Your task to perform on an android device: toggle data saver in the chrome app Image 0: 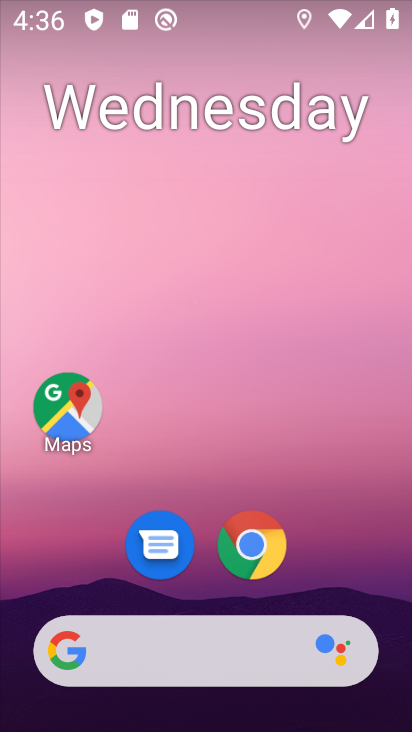
Step 0: drag from (222, 601) to (198, 272)
Your task to perform on an android device: toggle data saver in the chrome app Image 1: 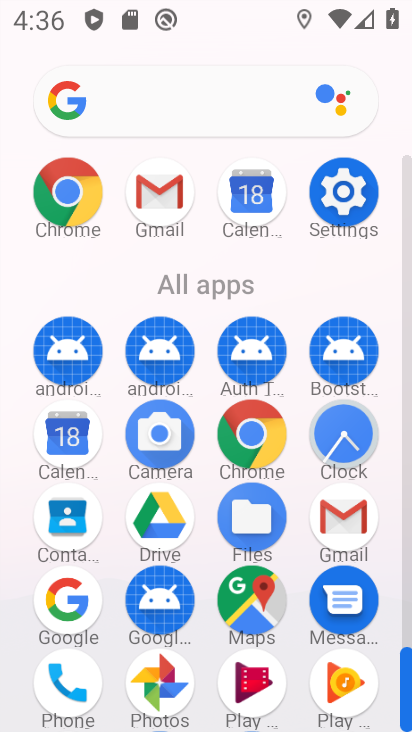
Step 1: click (265, 415)
Your task to perform on an android device: toggle data saver in the chrome app Image 2: 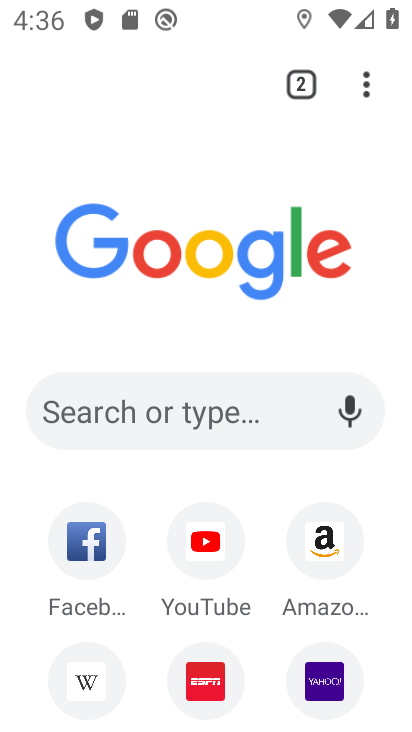
Step 2: click (365, 96)
Your task to perform on an android device: toggle data saver in the chrome app Image 3: 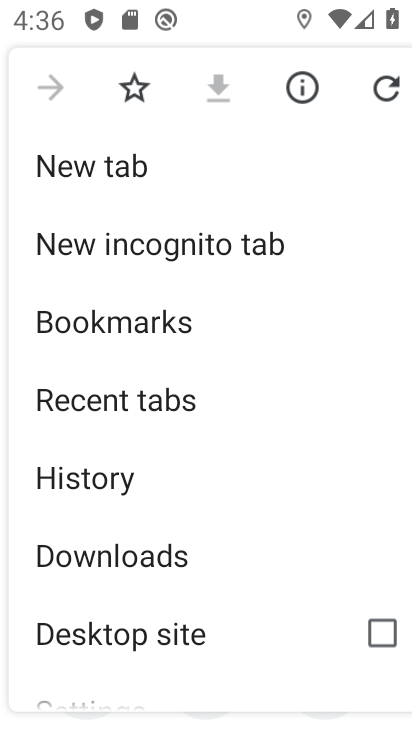
Step 3: drag from (279, 603) to (252, 145)
Your task to perform on an android device: toggle data saver in the chrome app Image 4: 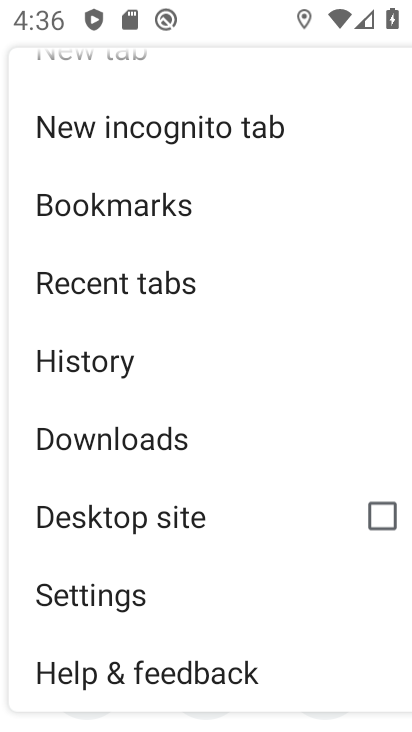
Step 4: click (112, 617)
Your task to perform on an android device: toggle data saver in the chrome app Image 5: 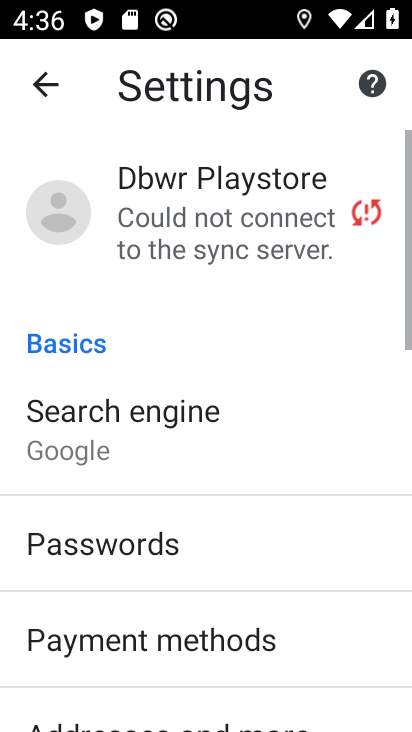
Step 5: drag from (113, 617) to (63, 142)
Your task to perform on an android device: toggle data saver in the chrome app Image 6: 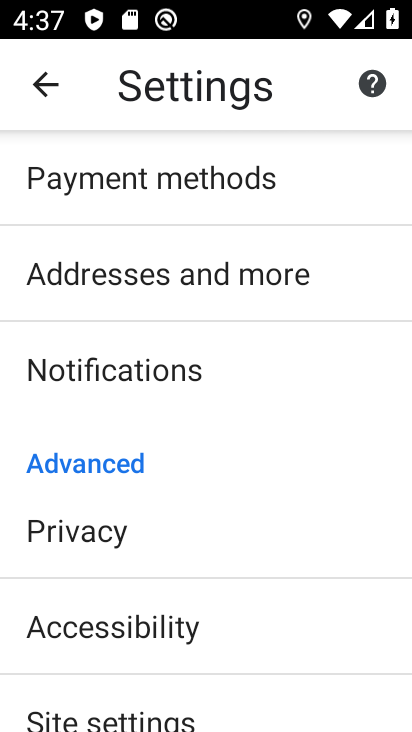
Step 6: drag from (135, 663) to (88, 186)
Your task to perform on an android device: toggle data saver in the chrome app Image 7: 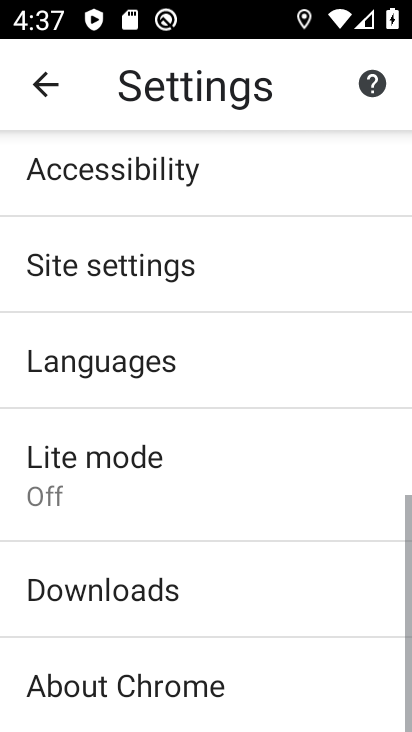
Step 7: click (104, 502)
Your task to perform on an android device: toggle data saver in the chrome app Image 8: 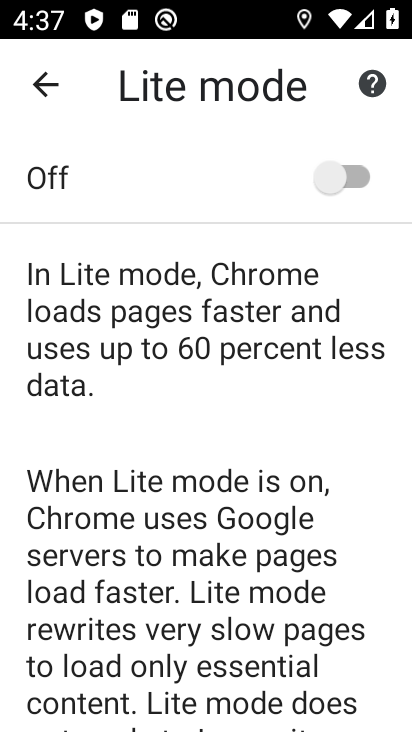
Step 8: click (338, 190)
Your task to perform on an android device: toggle data saver in the chrome app Image 9: 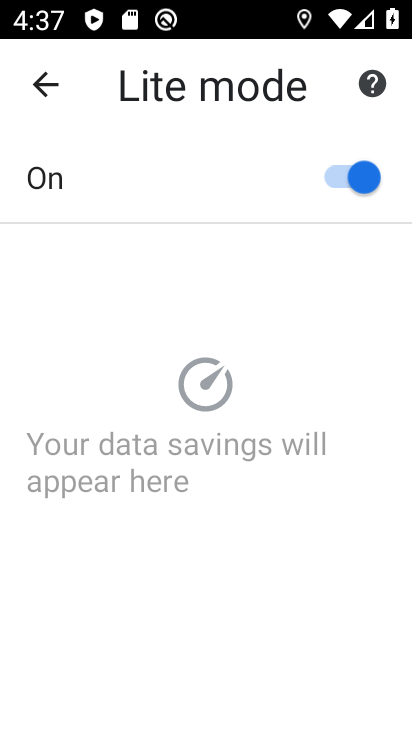
Step 9: task complete